Your task to perform on an android device: Open Maps and search for coffee Image 0: 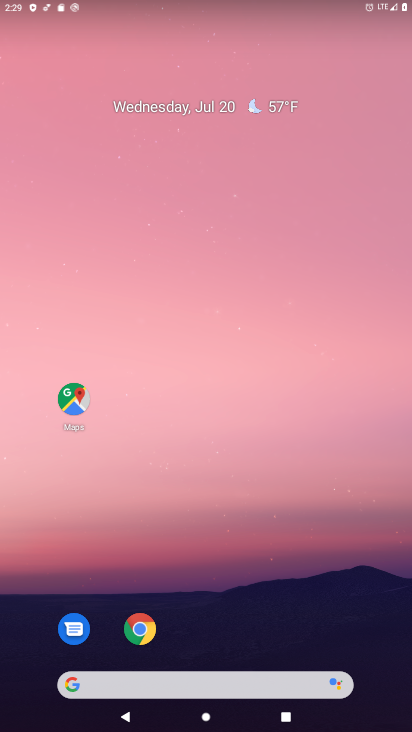
Step 0: click (73, 400)
Your task to perform on an android device: Open Maps and search for coffee Image 1: 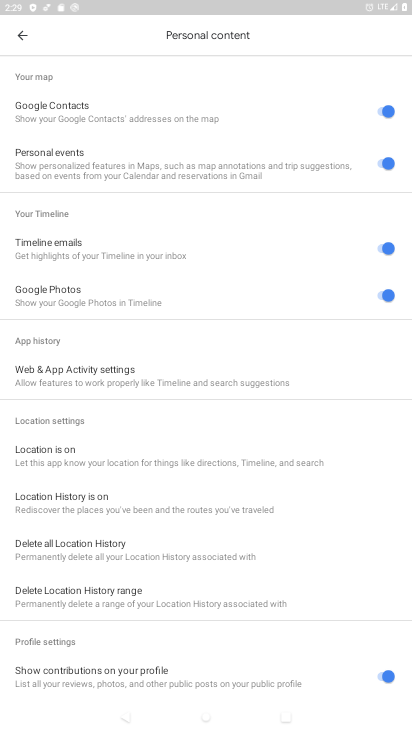
Step 1: press back button
Your task to perform on an android device: Open Maps and search for coffee Image 2: 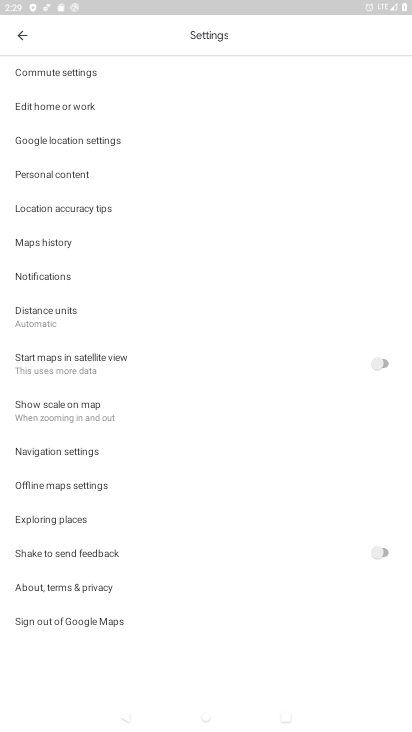
Step 2: press back button
Your task to perform on an android device: Open Maps and search for coffee Image 3: 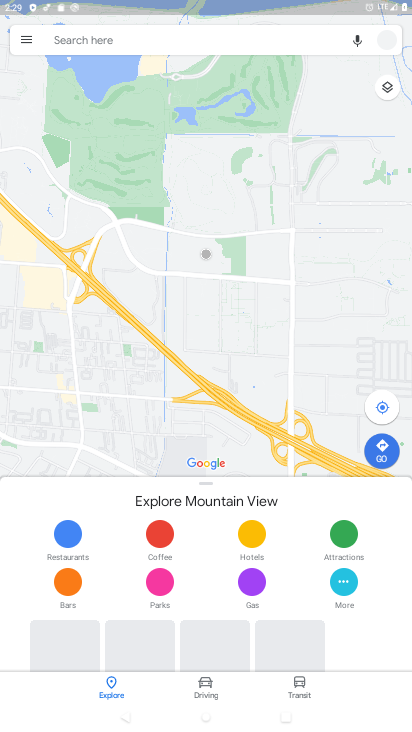
Step 3: click (96, 37)
Your task to perform on an android device: Open Maps and search for coffee Image 4: 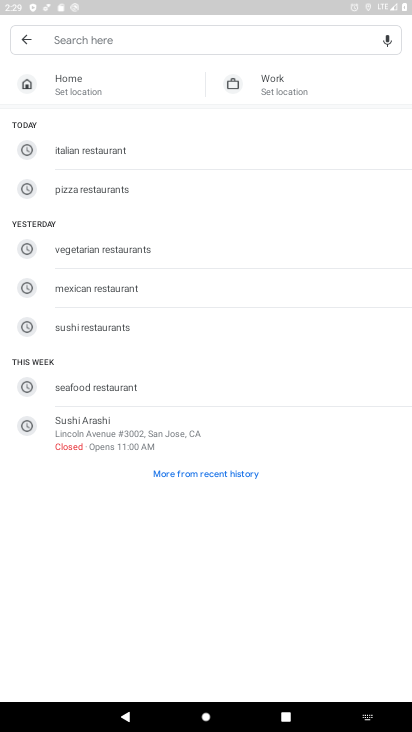
Step 4: type "coffee"
Your task to perform on an android device: Open Maps and search for coffee Image 5: 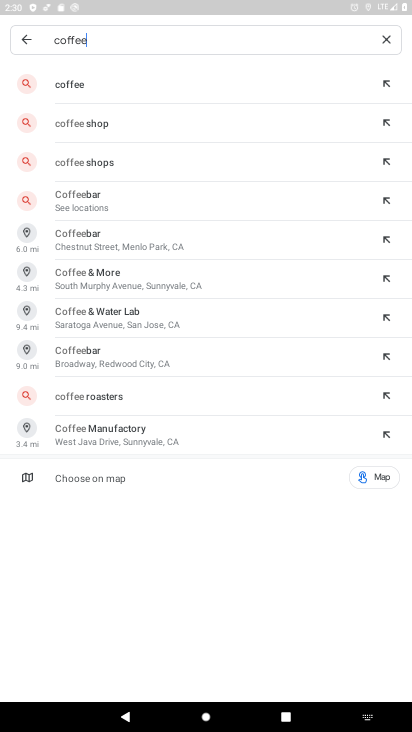
Step 5: click (81, 91)
Your task to perform on an android device: Open Maps and search for coffee Image 6: 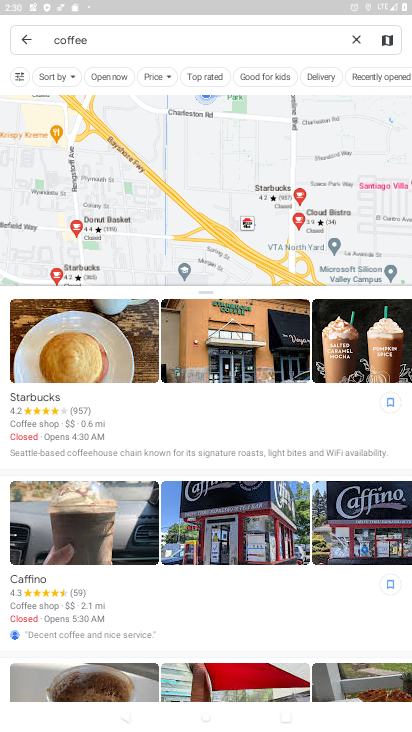
Step 6: task complete